Your task to perform on an android device: turn on sleep mode Image 0: 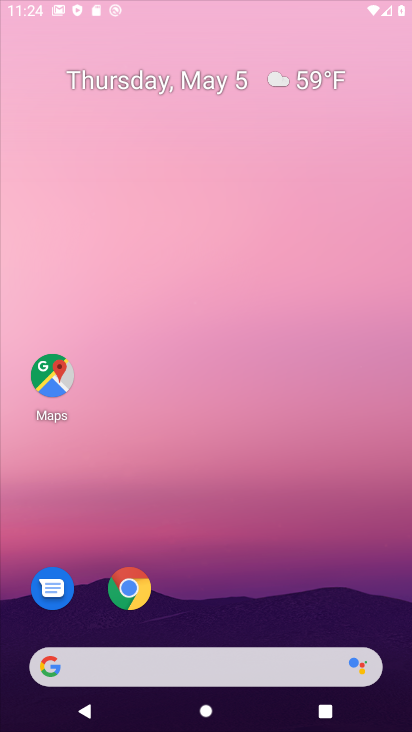
Step 0: drag from (227, 659) to (277, 32)
Your task to perform on an android device: turn on sleep mode Image 1: 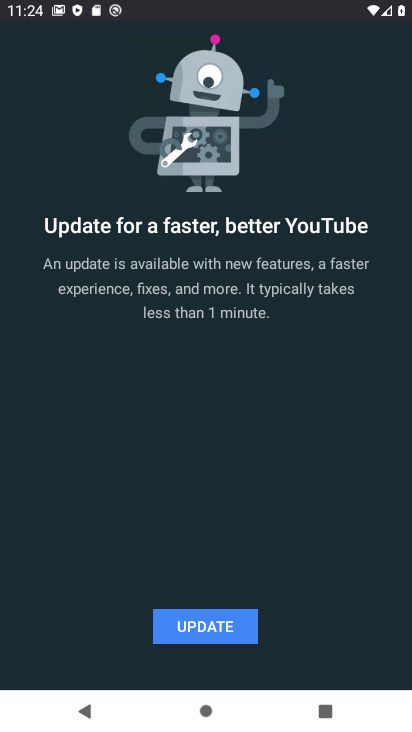
Step 1: press home button
Your task to perform on an android device: turn on sleep mode Image 2: 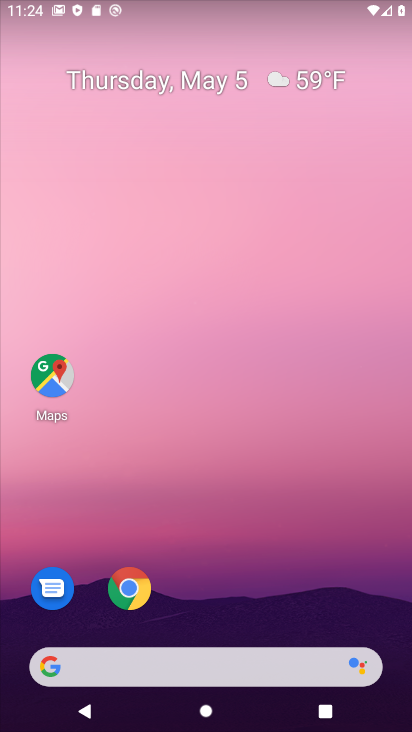
Step 2: drag from (203, 596) to (303, 48)
Your task to perform on an android device: turn on sleep mode Image 3: 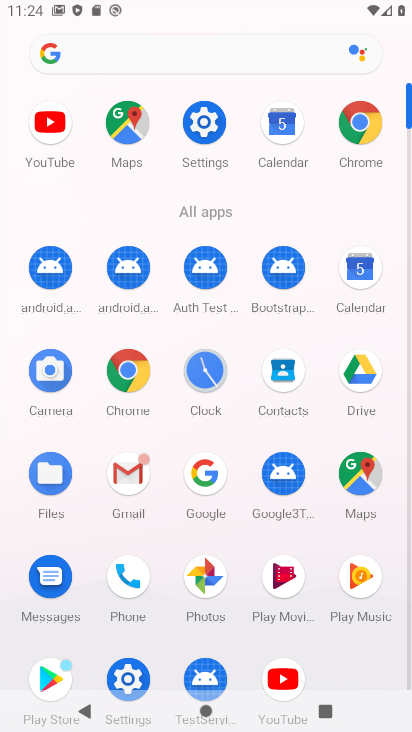
Step 3: click (203, 128)
Your task to perform on an android device: turn on sleep mode Image 4: 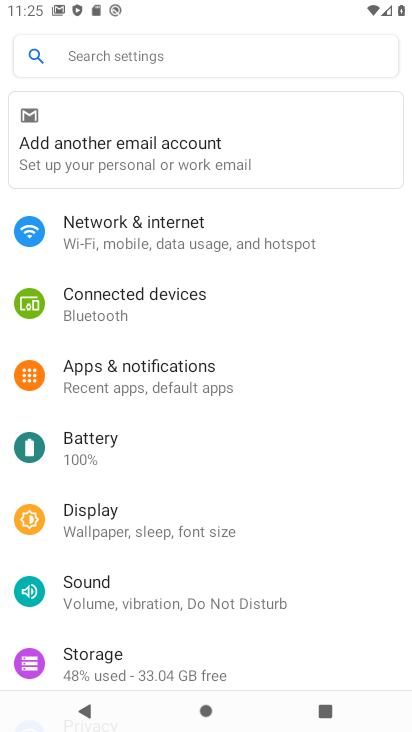
Step 4: click (155, 529)
Your task to perform on an android device: turn on sleep mode Image 5: 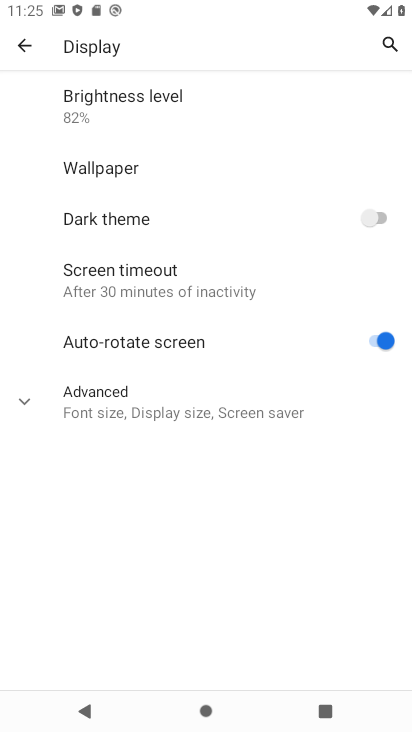
Step 5: task complete